Your task to perform on an android device: What's on my calendar today? Image 0: 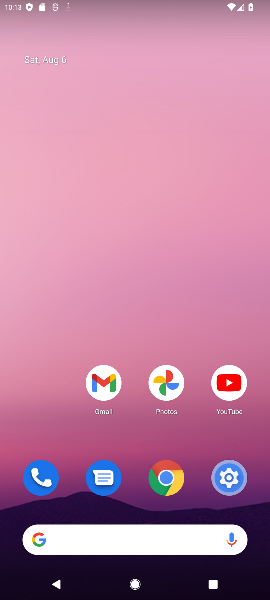
Step 0: drag from (139, 501) to (123, 68)
Your task to perform on an android device: What's on my calendar today? Image 1: 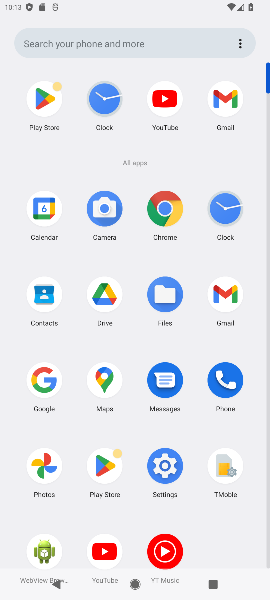
Step 1: click (45, 210)
Your task to perform on an android device: What's on my calendar today? Image 2: 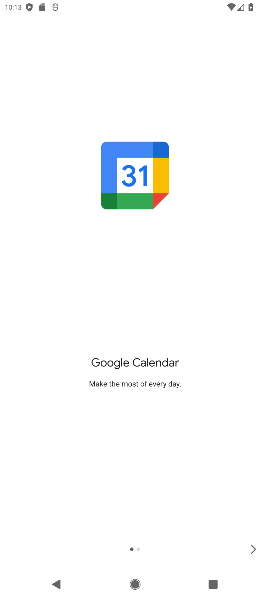
Step 2: click (253, 550)
Your task to perform on an android device: What's on my calendar today? Image 3: 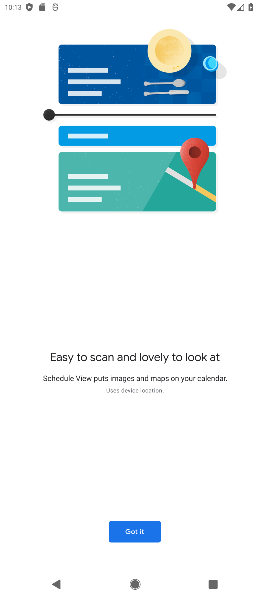
Step 3: click (145, 519)
Your task to perform on an android device: What's on my calendar today? Image 4: 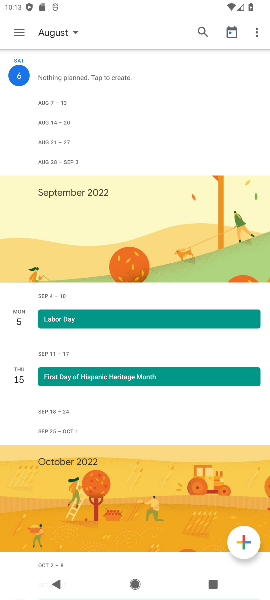
Step 4: click (73, 32)
Your task to perform on an android device: What's on my calendar today? Image 5: 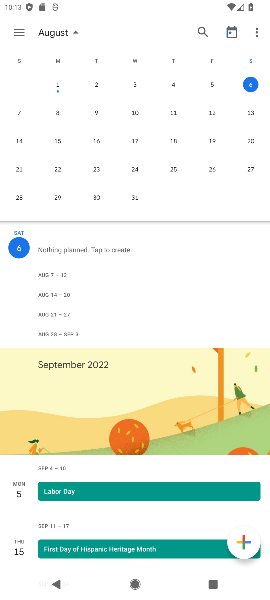
Step 5: click (252, 84)
Your task to perform on an android device: What's on my calendar today? Image 6: 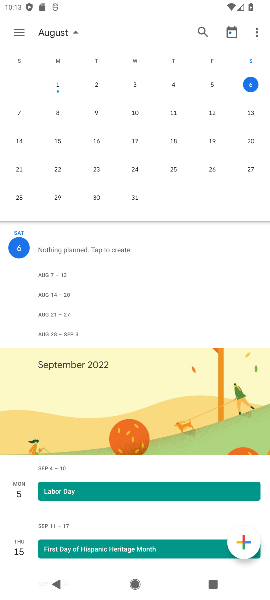
Step 6: task complete